Your task to perform on an android device: turn on the 12-hour format for clock Image 0: 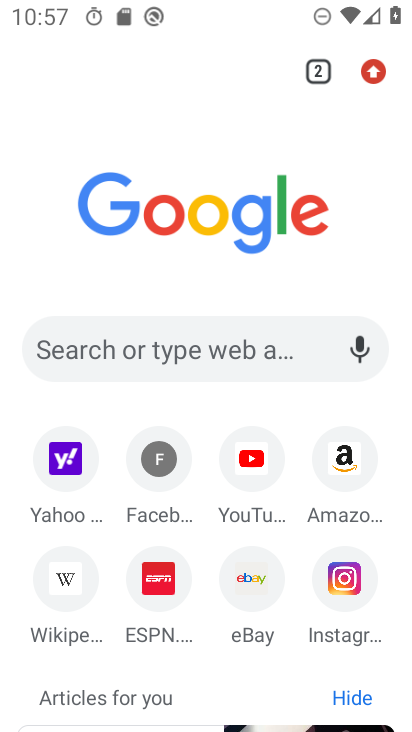
Step 0: press back button
Your task to perform on an android device: turn on the 12-hour format for clock Image 1: 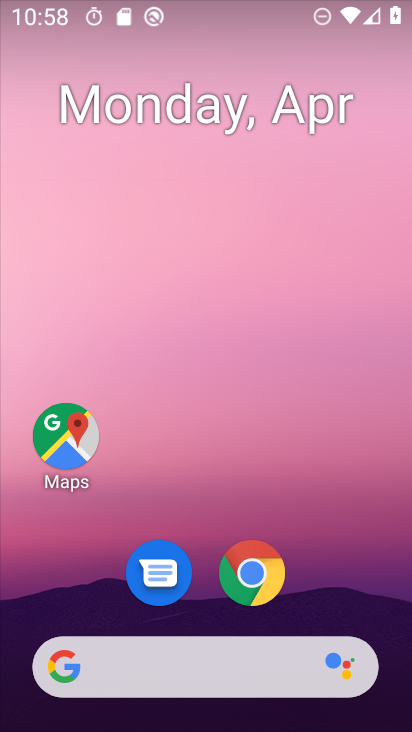
Step 1: drag from (332, 499) to (324, 5)
Your task to perform on an android device: turn on the 12-hour format for clock Image 2: 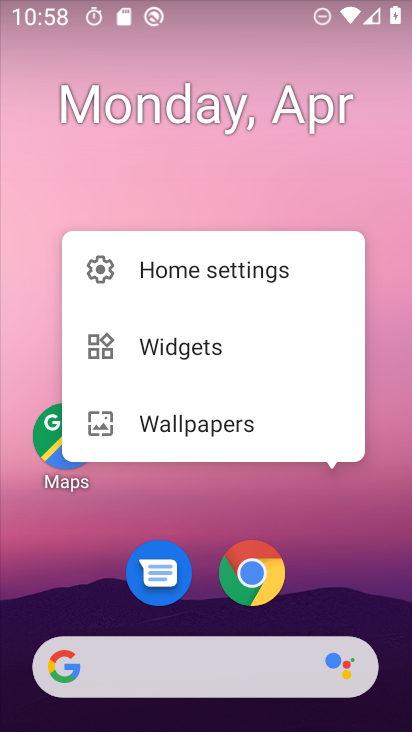
Step 2: click (343, 557)
Your task to perform on an android device: turn on the 12-hour format for clock Image 3: 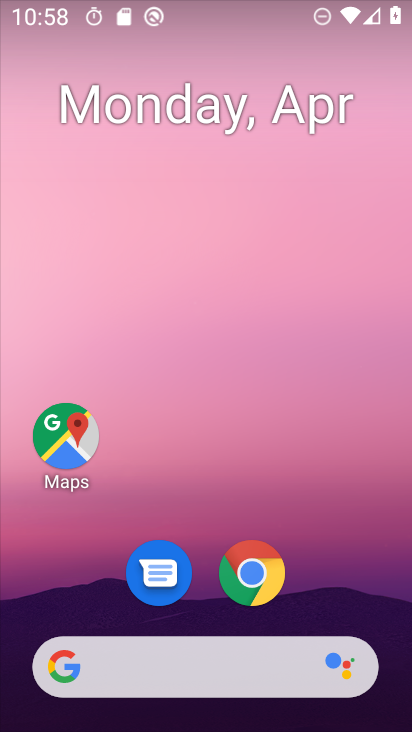
Step 3: drag from (328, 526) to (193, 131)
Your task to perform on an android device: turn on the 12-hour format for clock Image 4: 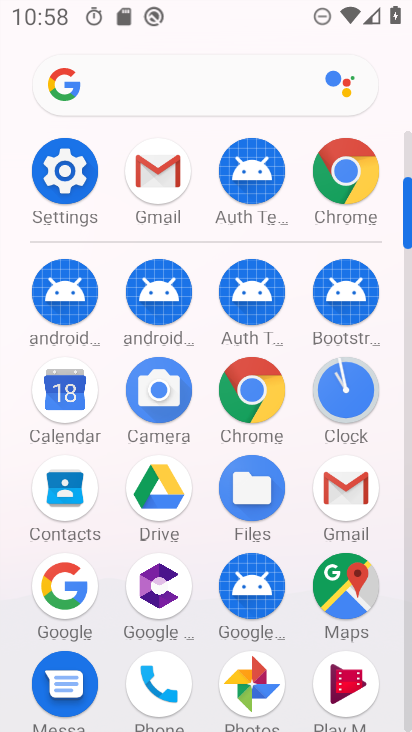
Step 4: click (324, 391)
Your task to perform on an android device: turn on the 12-hour format for clock Image 5: 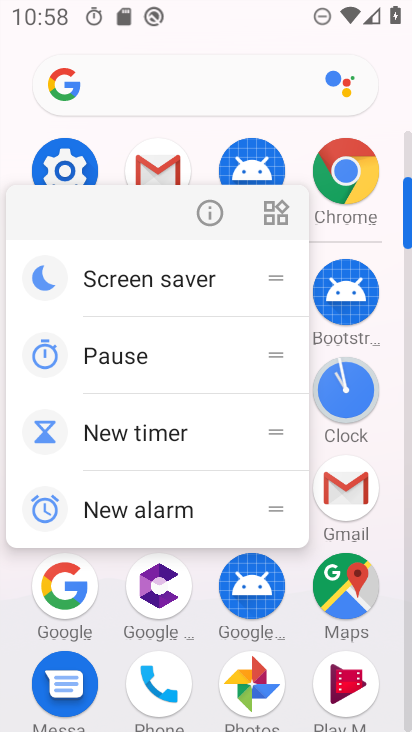
Step 5: click (337, 380)
Your task to perform on an android device: turn on the 12-hour format for clock Image 6: 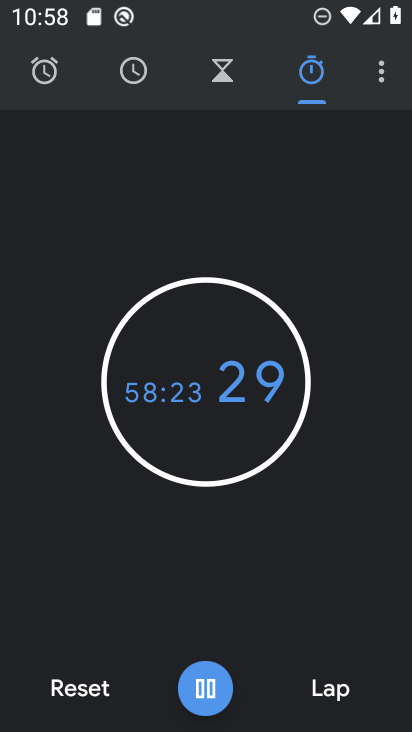
Step 6: click (373, 83)
Your task to perform on an android device: turn on the 12-hour format for clock Image 7: 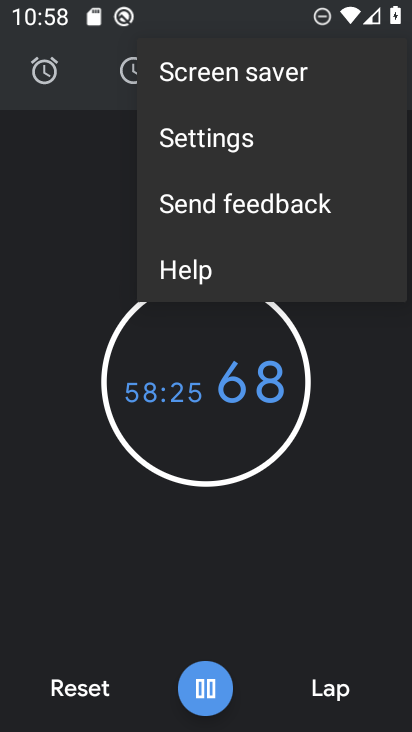
Step 7: click (213, 149)
Your task to perform on an android device: turn on the 12-hour format for clock Image 8: 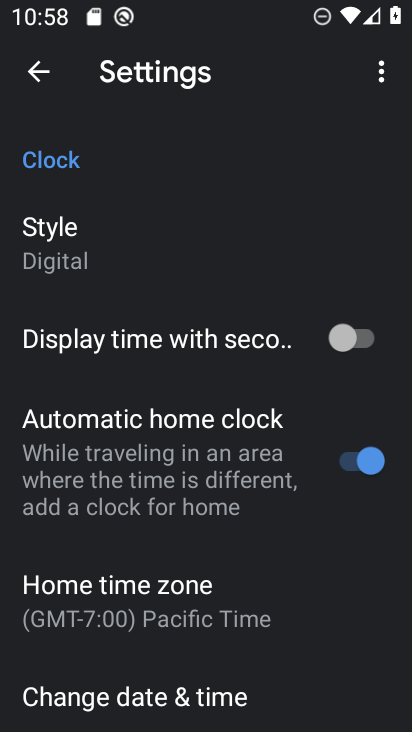
Step 8: drag from (221, 642) to (174, 307)
Your task to perform on an android device: turn on the 12-hour format for clock Image 9: 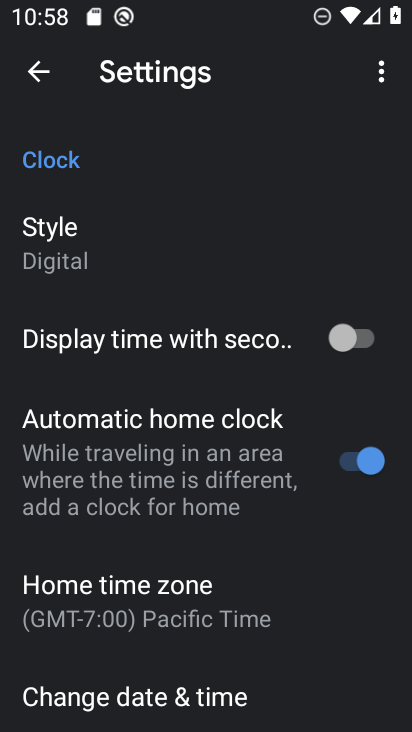
Step 9: drag from (139, 625) to (174, 288)
Your task to perform on an android device: turn on the 12-hour format for clock Image 10: 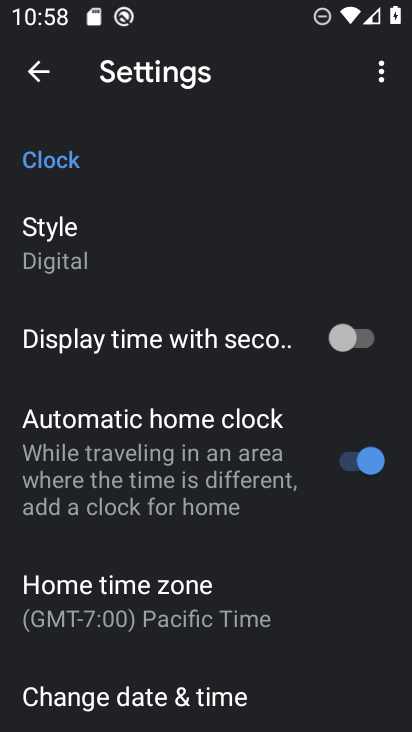
Step 10: drag from (265, 667) to (210, 158)
Your task to perform on an android device: turn on the 12-hour format for clock Image 11: 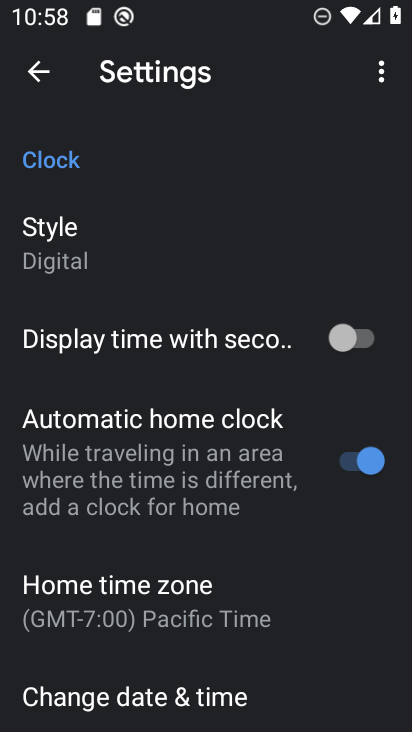
Step 11: drag from (268, 682) to (259, 178)
Your task to perform on an android device: turn on the 12-hour format for clock Image 12: 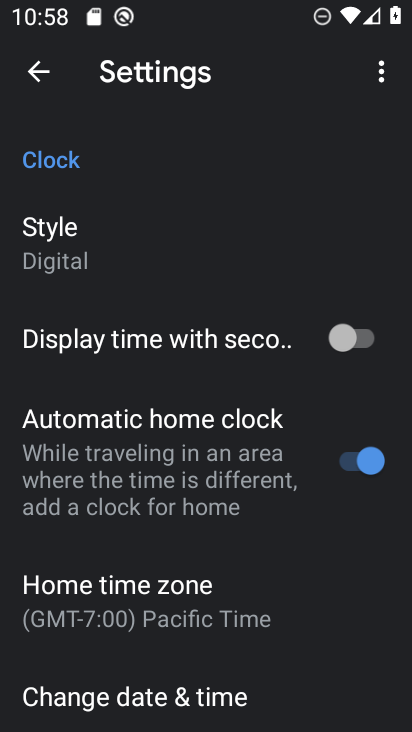
Step 12: drag from (205, 566) to (200, 159)
Your task to perform on an android device: turn on the 12-hour format for clock Image 13: 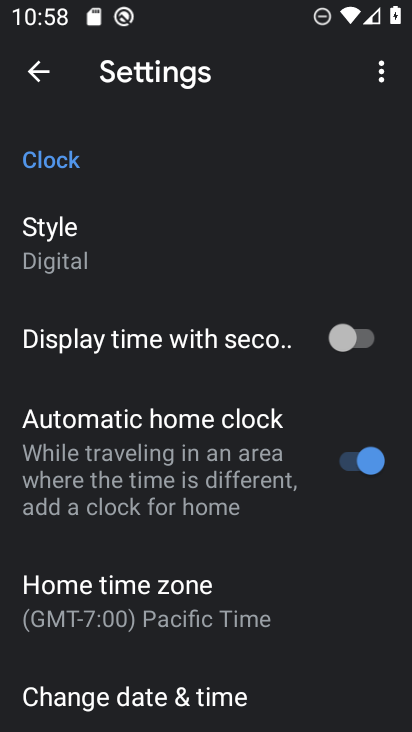
Step 13: drag from (211, 628) to (222, 125)
Your task to perform on an android device: turn on the 12-hour format for clock Image 14: 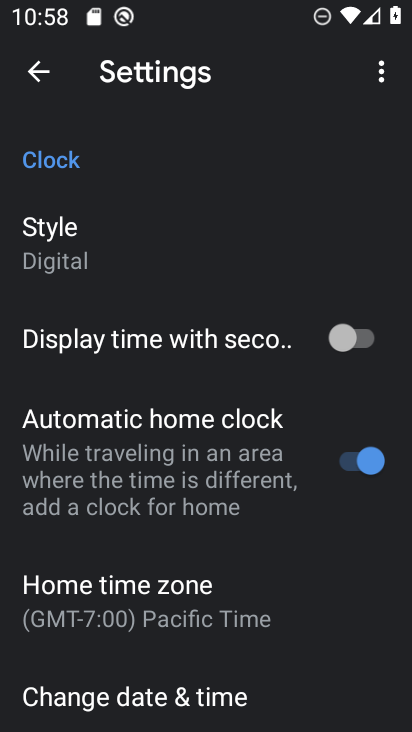
Step 14: drag from (240, 570) to (174, 181)
Your task to perform on an android device: turn on the 12-hour format for clock Image 15: 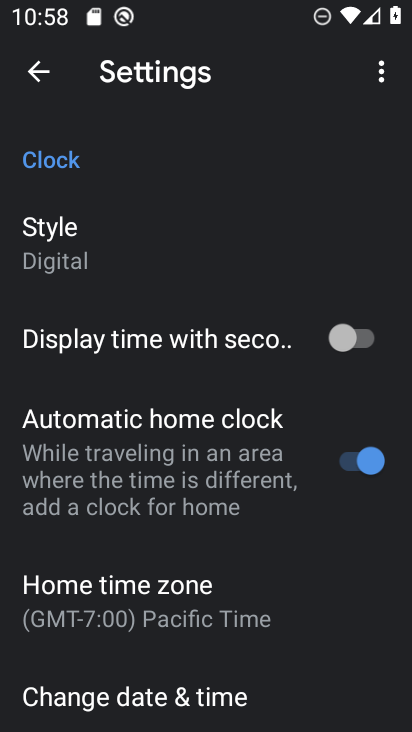
Step 15: drag from (174, 544) to (140, 190)
Your task to perform on an android device: turn on the 12-hour format for clock Image 16: 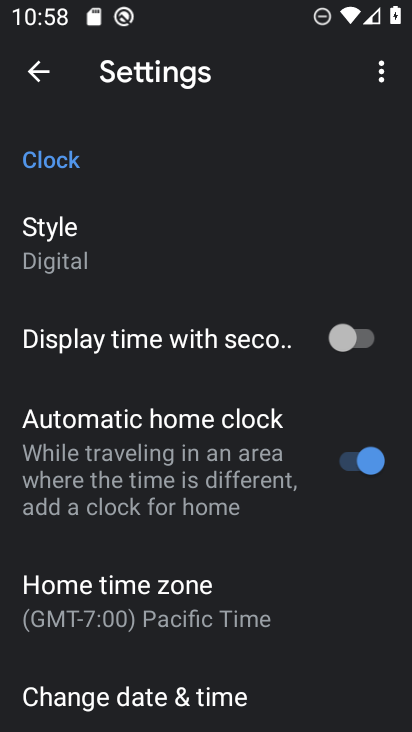
Step 16: drag from (201, 634) to (133, 184)
Your task to perform on an android device: turn on the 12-hour format for clock Image 17: 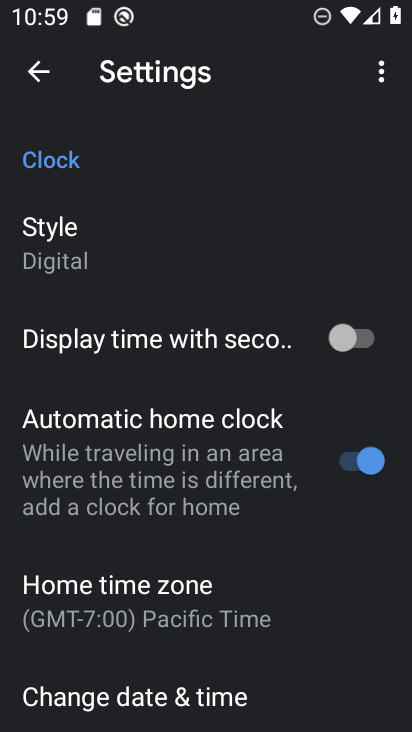
Step 17: drag from (200, 540) to (140, 186)
Your task to perform on an android device: turn on the 12-hour format for clock Image 18: 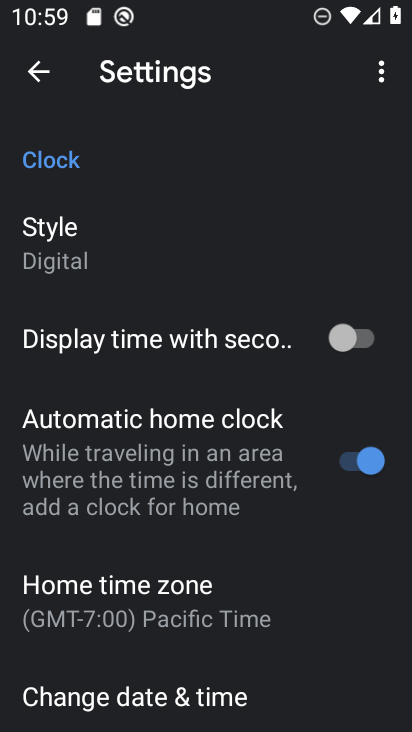
Step 18: drag from (232, 586) to (186, 207)
Your task to perform on an android device: turn on the 12-hour format for clock Image 19: 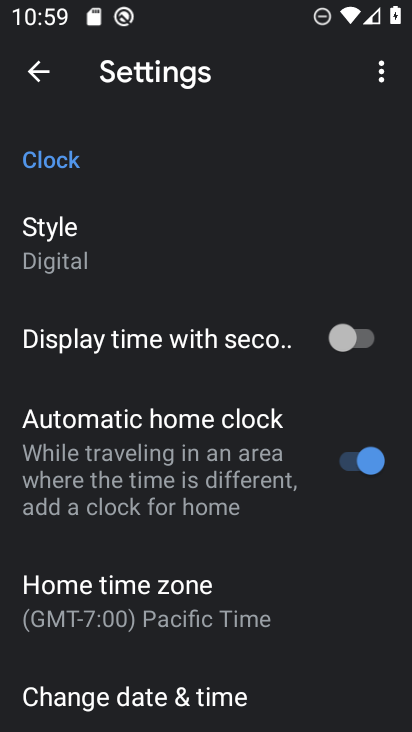
Step 19: drag from (241, 569) to (189, 216)
Your task to perform on an android device: turn on the 12-hour format for clock Image 20: 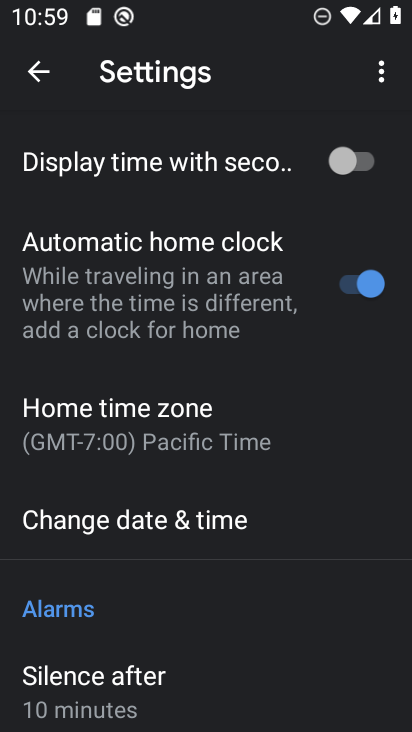
Step 20: drag from (202, 609) to (181, 273)
Your task to perform on an android device: turn on the 12-hour format for clock Image 21: 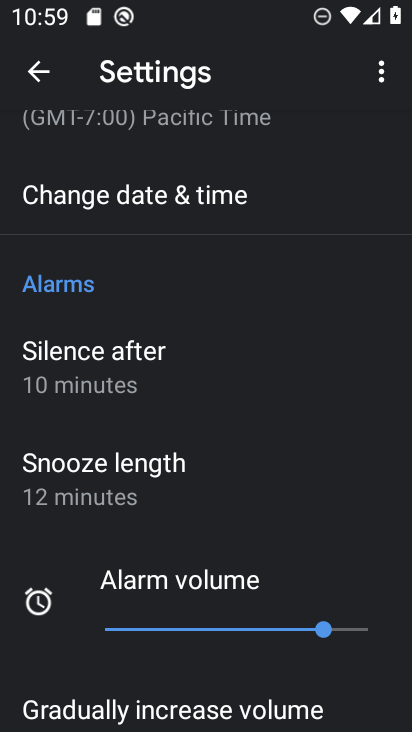
Step 21: drag from (250, 606) to (235, 208)
Your task to perform on an android device: turn on the 12-hour format for clock Image 22: 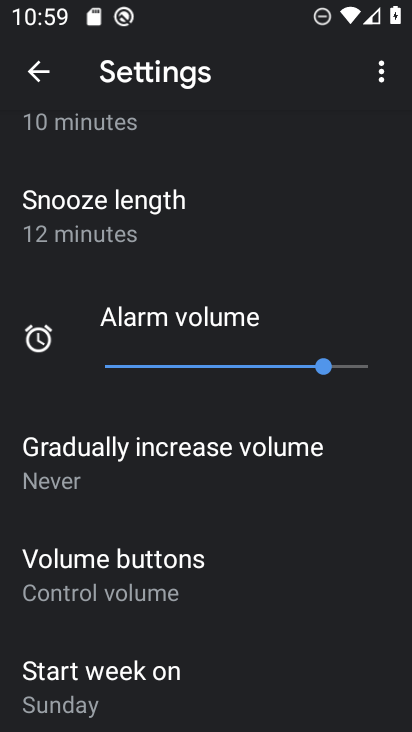
Step 22: drag from (244, 569) to (274, 148)
Your task to perform on an android device: turn on the 12-hour format for clock Image 23: 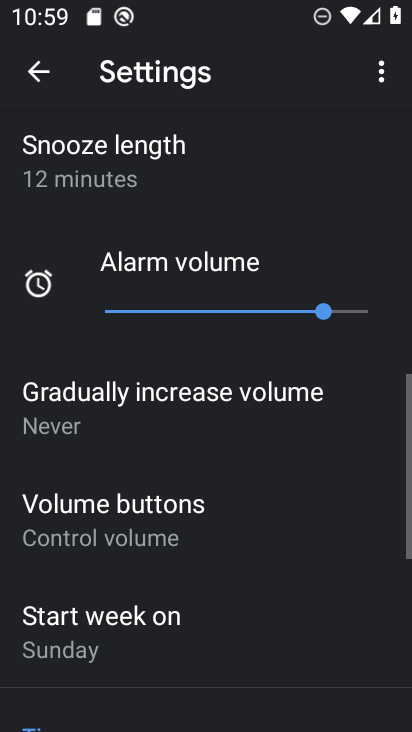
Step 23: drag from (249, 654) to (265, 204)
Your task to perform on an android device: turn on the 12-hour format for clock Image 24: 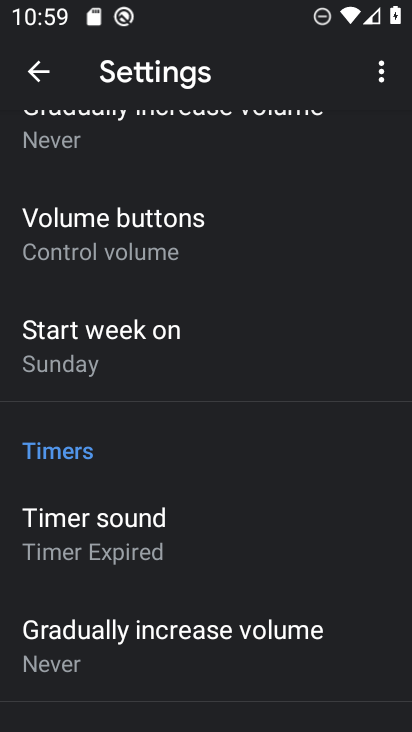
Step 24: drag from (297, 603) to (364, 164)
Your task to perform on an android device: turn on the 12-hour format for clock Image 25: 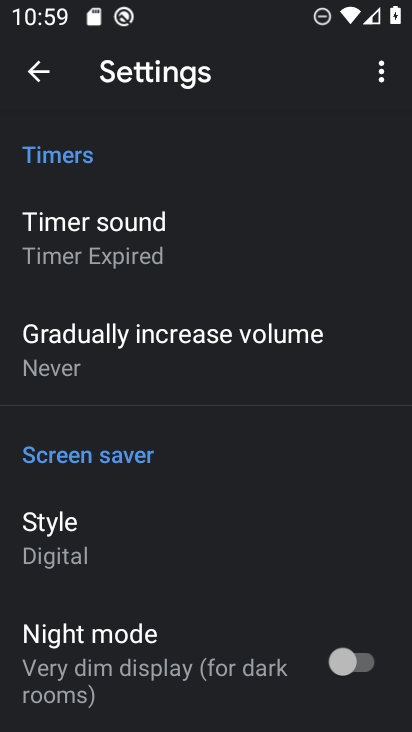
Step 25: drag from (90, 569) to (155, 206)
Your task to perform on an android device: turn on the 12-hour format for clock Image 26: 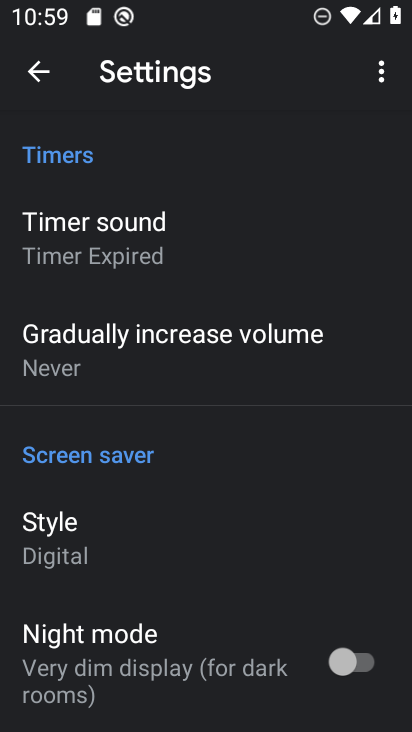
Step 26: drag from (128, 592) to (109, 208)
Your task to perform on an android device: turn on the 12-hour format for clock Image 27: 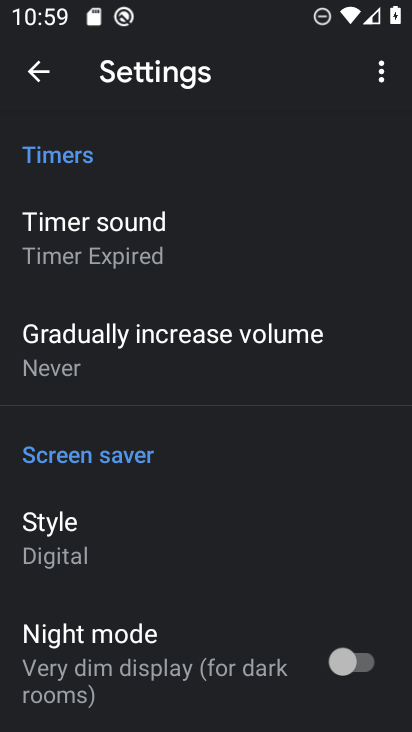
Step 27: drag from (260, 444) to (308, 630)
Your task to perform on an android device: turn on the 12-hour format for clock Image 28: 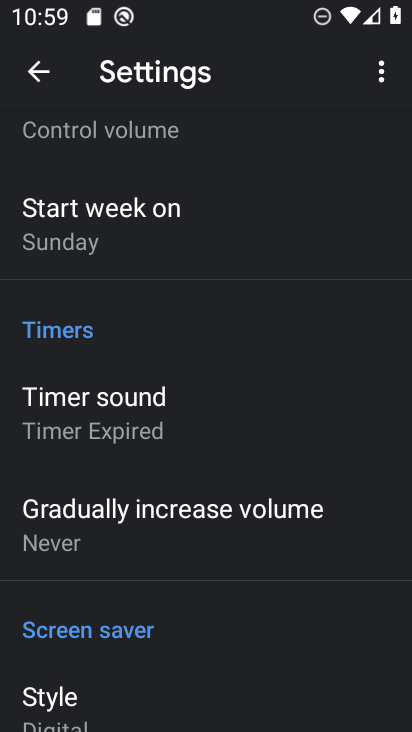
Step 28: drag from (291, 345) to (345, 562)
Your task to perform on an android device: turn on the 12-hour format for clock Image 29: 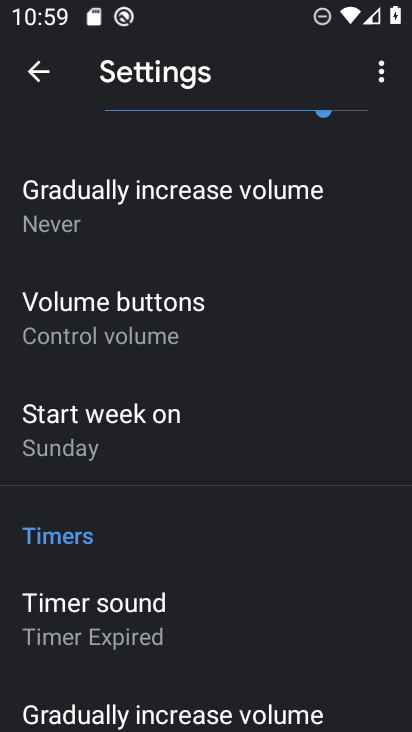
Step 29: drag from (160, 263) to (199, 552)
Your task to perform on an android device: turn on the 12-hour format for clock Image 30: 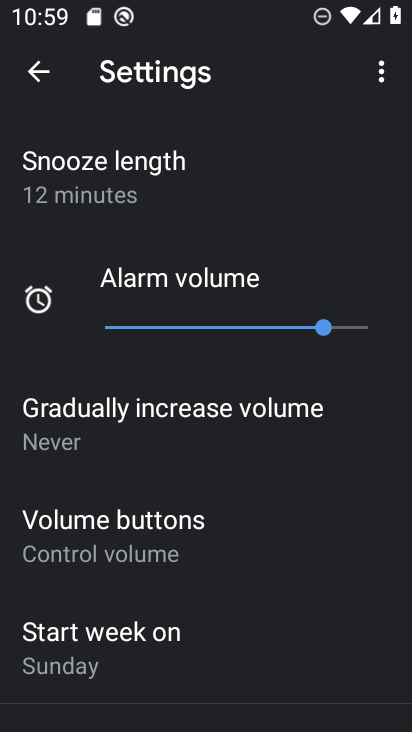
Step 30: drag from (132, 257) to (177, 544)
Your task to perform on an android device: turn on the 12-hour format for clock Image 31: 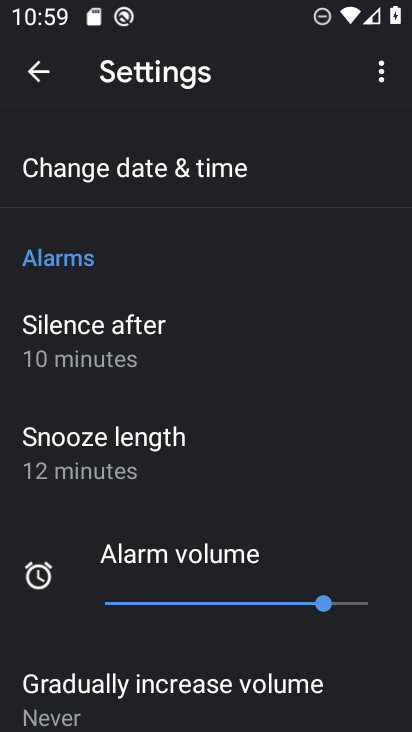
Step 31: click (76, 175)
Your task to perform on an android device: turn on the 12-hour format for clock Image 32: 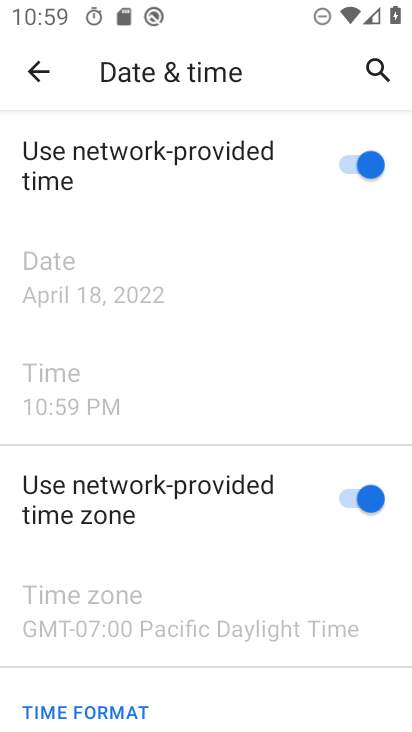
Step 32: drag from (258, 528) to (233, 221)
Your task to perform on an android device: turn on the 12-hour format for clock Image 33: 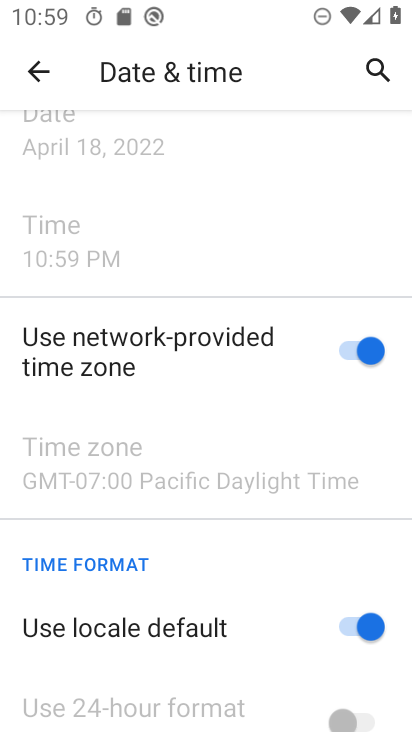
Step 33: drag from (316, 630) to (347, 217)
Your task to perform on an android device: turn on the 12-hour format for clock Image 34: 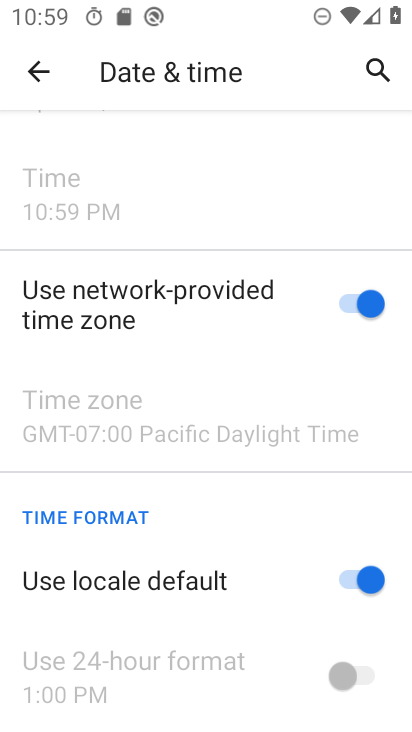
Step 34: click (355, 586)
Your task to perform on an android device: turn on the 12-hour format for clock Image 35: 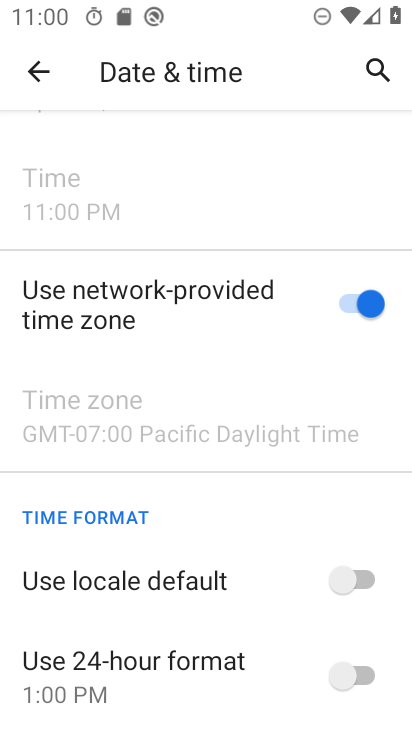
Step 35: task complete